Your task to perform on an android device: Clear the cart on costco.com. Add "acer predator" to the cart on costco.com, then select checkout. Image 0: 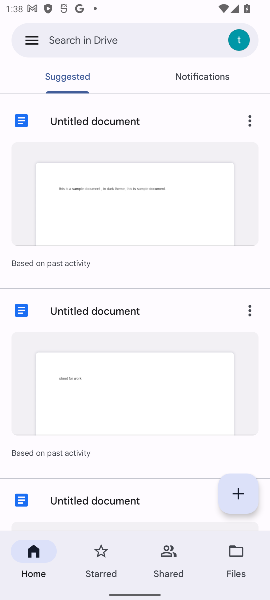
Step 0: press home button
Your task to perform on an android device: Clear the cart on costco.com. Add "acer predator" to the cart on costco.com, then select checkout. Image 1: 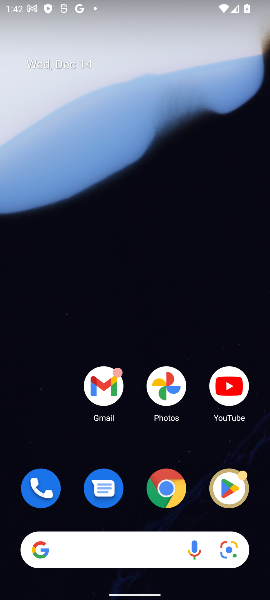
Step 1: drag from (102, 550) to (119, 438)
Your task to perform on an android device: Clear the cart on costco.com. Add "acer predator" to the cart on costco.com, then select checkout. Image 2: 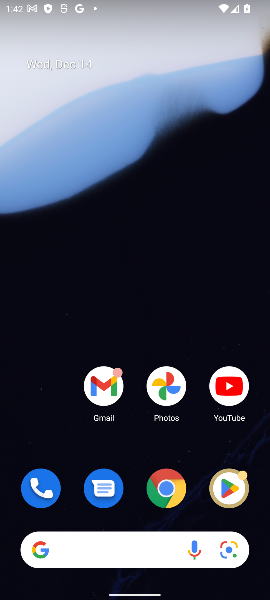
Step 2: drag from (142, 526) to (153, 30)
Your task to perform on an android device: Clear the cart on costco.com. Add "acer predator" to the cart on costco.com, then select checkout. Image 3: 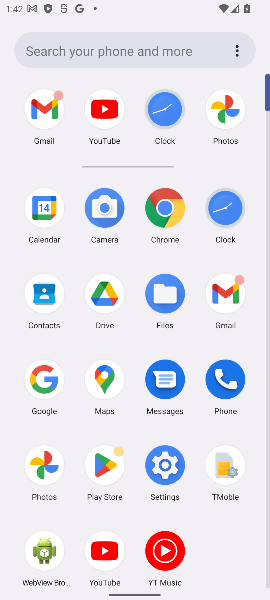
Step 3: click (20, 378)
Your task to perform on an android device: Clear the cart on costco.com. Add "acer predator" to the cart on costco.com, then select checkout. Image 4: 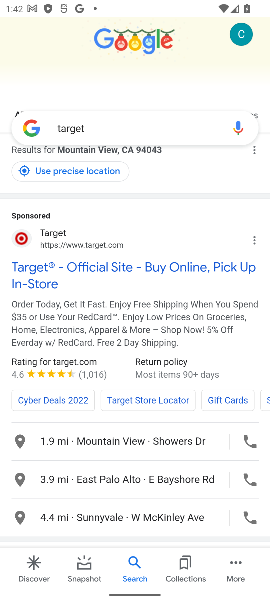
Step 4: click (114, 127)
Your task to perform on an android device: Clear the cart on costco.com. Add "acer predator" to the cart on costco.com, then select checkout. Image 5: 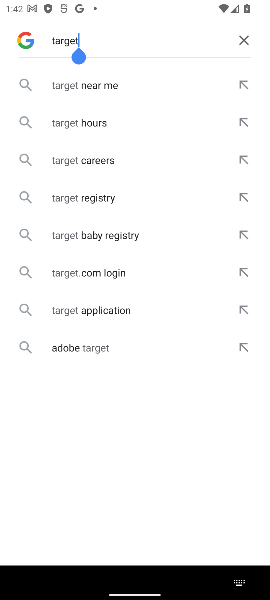
Step 5: click (245, 41)
Your task to perform on an android device: Clear the cart on costco.com. Add "acer predator" to the cart on costco.com, then select checkout. Image 6: 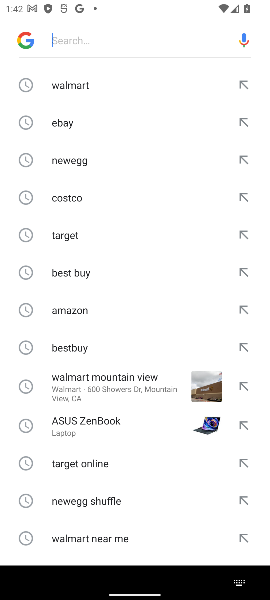
Step 6: click (67, 193)
Your task to perform on an android device: Clear the cart on costco.com. Add "acer predator" to the cart on costco.com, then select checkout. Image 7: 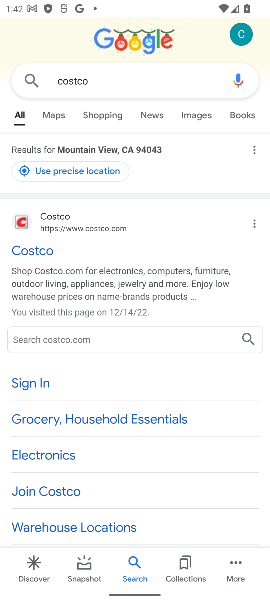
Step 7: click (33, 255)
Your task to perform on an android device: Clear the cart on costco.com. Add "acer predator" to the cart on costco.com, then select checkout. Image 8: 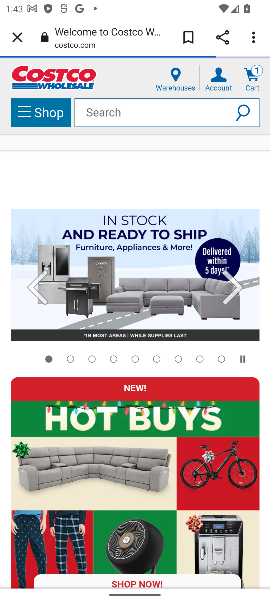
Step 8: click (100, 112)
Your task to perform on an android device: Clear the cart on costco.com. Add "acer predator" to the cart on costco.com, then select checkout. Image 9: 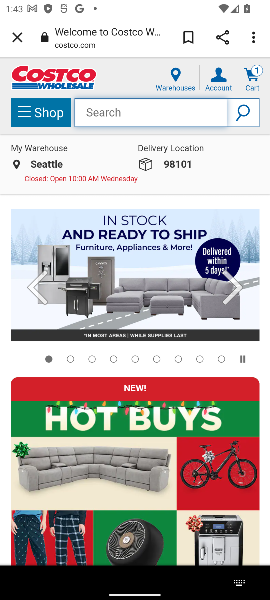
Step 9: click (245, 74)
Your task to perform on an android device: Clear the cart on costco.com. Add "acer predator" to the cart on costco.com, then select checkout. Image 10: 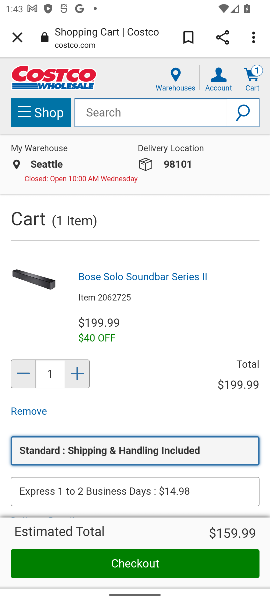
Step 10: click (28, 410)
Your task to perform on an android device: Clear the cart on costco.com. Add "acer predator" to the cart on costco.com, then select checkout. Image 11: 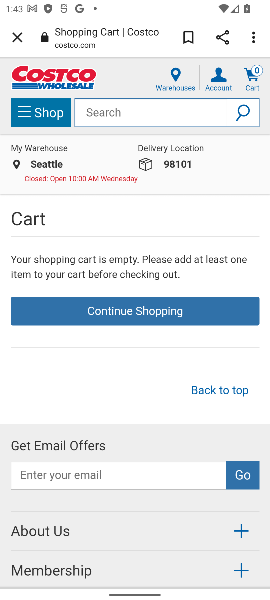
Step 11: click (125, 116)
Your task to perform on an android device: Clear the cart on costco.com. Add "acer predator" to the cart on costco.com, then select checkout. Image 12: 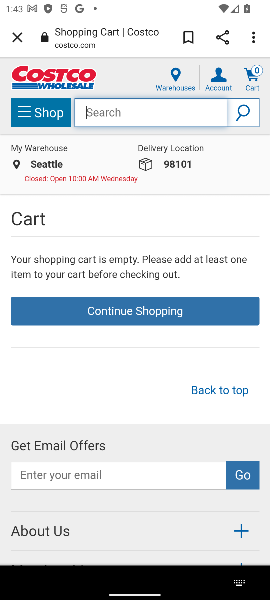
Step 12: type "acer predator"
Your task to perform on an android device: Clear the cart on costco.com. Add "acer predator" to the cart on costco.com, then select checkout. Image 13: 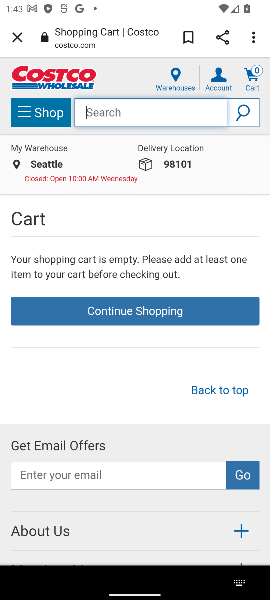
Step 13: click (245, 113)
Your task to perform on an android device: Clear the cart on costco.com. Add "acer predator" to the cart on costco.com, then select checkout. Image 14: 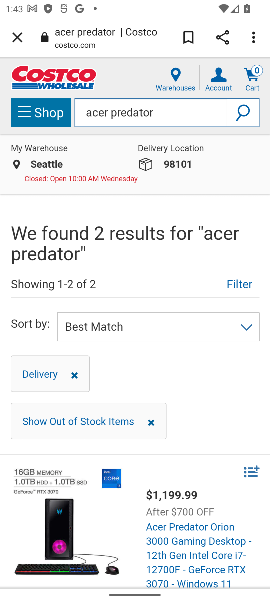
Step 14: drag from (132, 532) to (148, 275)
Your task to perform on an android device: Clear the cart on costco.com. Add "acer predator" to the cart on costco.com, then select checkout. Image 15: 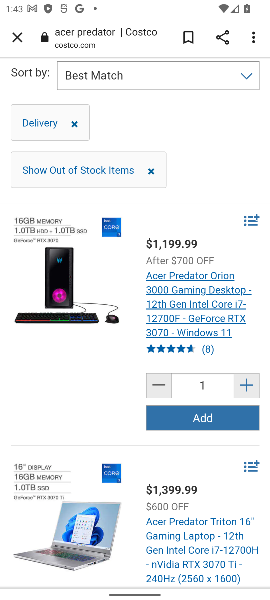
Step 15: click (178, 414)
Your task to perform on an android device: Clear the cart on costco.com. Add "acer predator" to the cart on costco.com, then select checkout. Image 16: 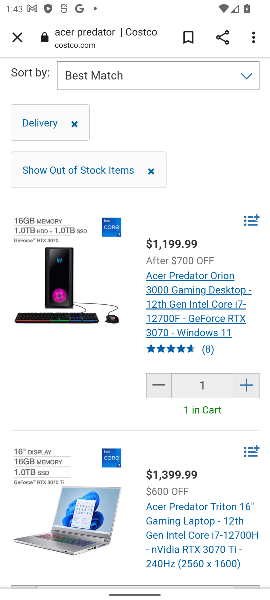
Step 16: drag from (220, 95) to (231, 378)
Your task to perform on an android device: Clear the cart on costco.com. Add "acer predator" to the cart on costco.com, then select checkout. Image 17: 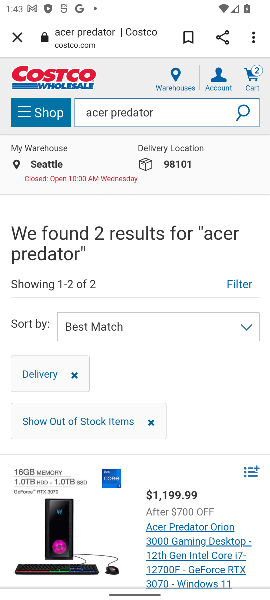
Step 17: click (246, 63)
Your task to perform on an android device: Clear the cart on costco.com. Add "acer predator" to the cart on costco.com, then select checkout. Image 18: 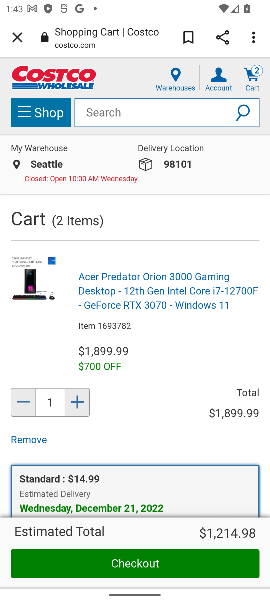
Step 18: click (121, 564)
Your task to perform on an android device: Clear the cart on costco.com. Add "acer predator" to the cart on costco.com, then select checkout. Image 19: 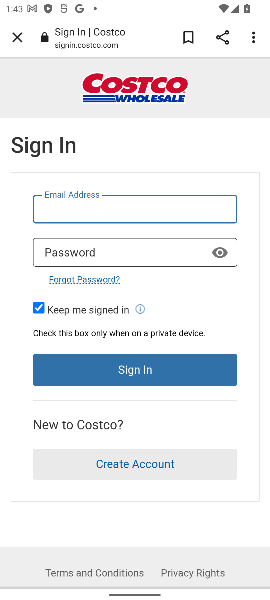
Step 19: task complete